Your task to perform on an android device: set an alarm Image 0: 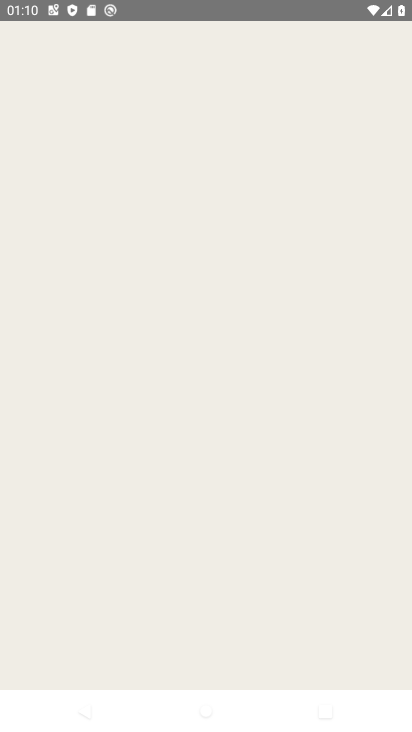
Step 0: click (255, 211)
Your task to perform on an android device: set an alarm Image 1: 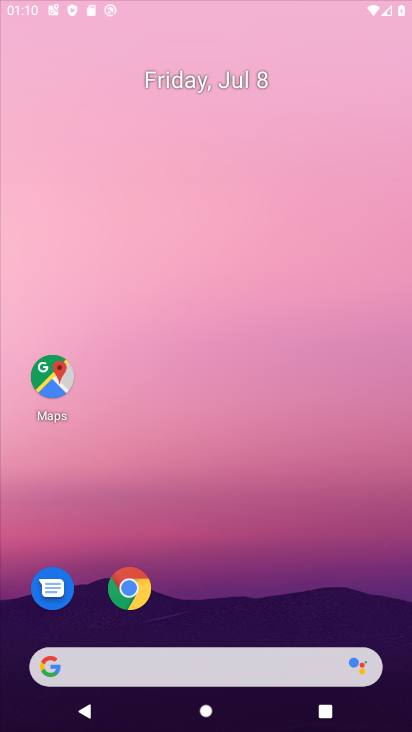
Step 1: drag from (195, 572) to (223, 193)
Your task to perform on an android device: set an alarm Image 2: 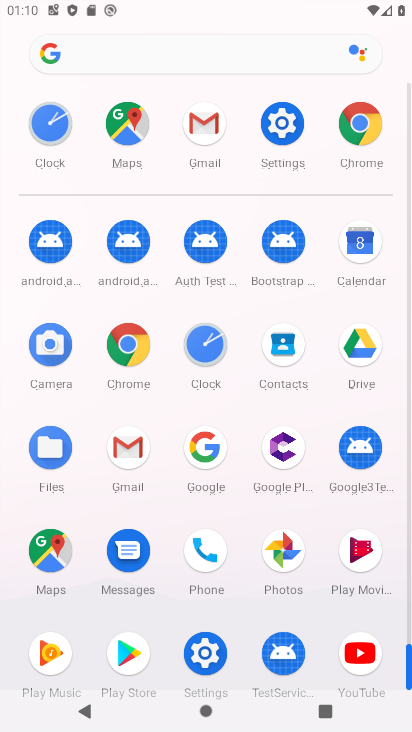
Step 2: press home button
Your task to perform on an android device: set an alarm Image 3: 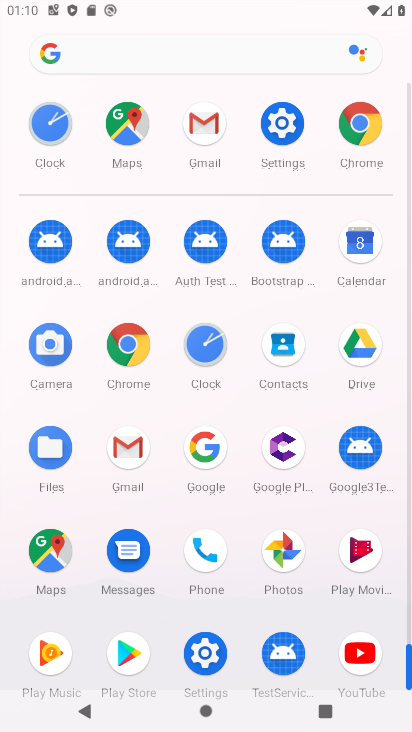
Step 3: press home button
Your task to perform on an android device: set an alarm Image 4: 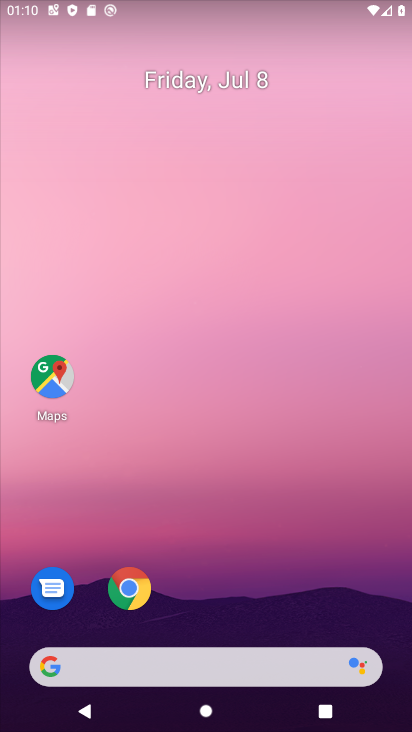
Step 4: drag from (212, 594) to (195, 152)
Your task to perform on an android device: set an alarm Image 5: 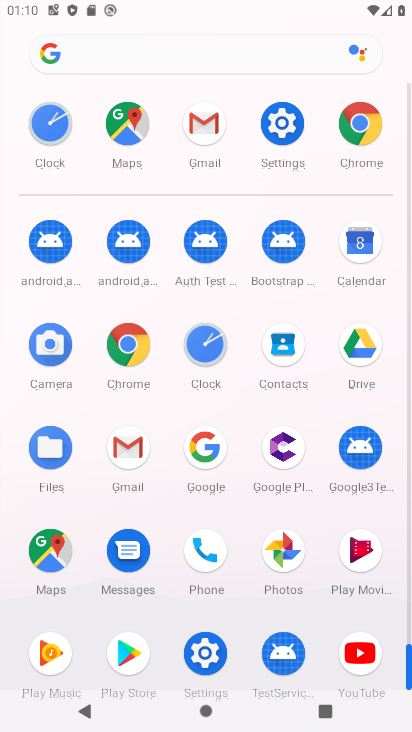
Step 5: click (203, 338)
Your task to perform on an android device: set an alarm Image 6: 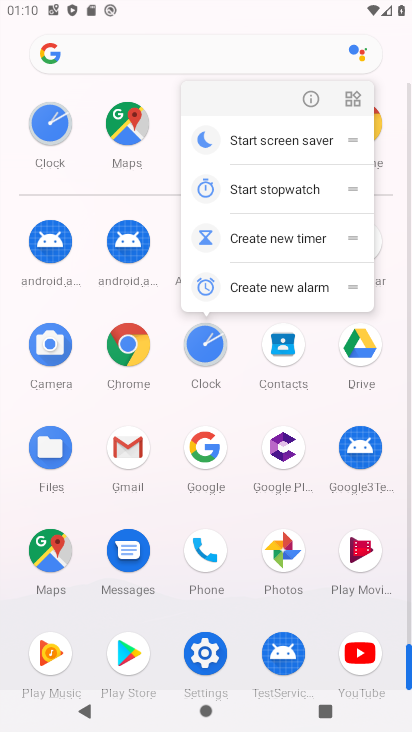
Step 6: click (303, 98)
Your task to perform on an android device: set an alarm Image 7: 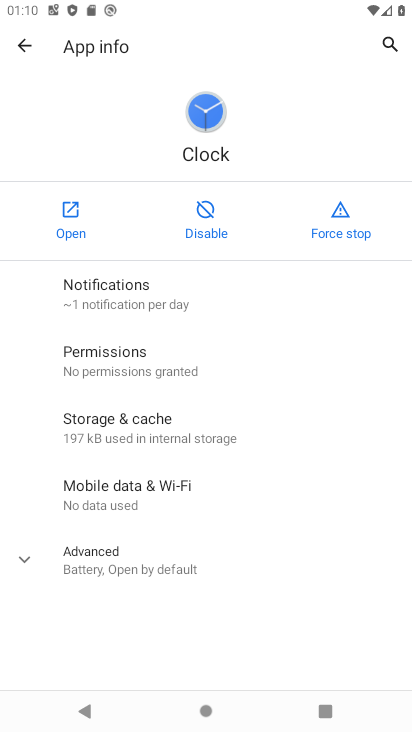
Step 7: click (78, 209)
Your task to perform on an android device: set an alarm Image 8: 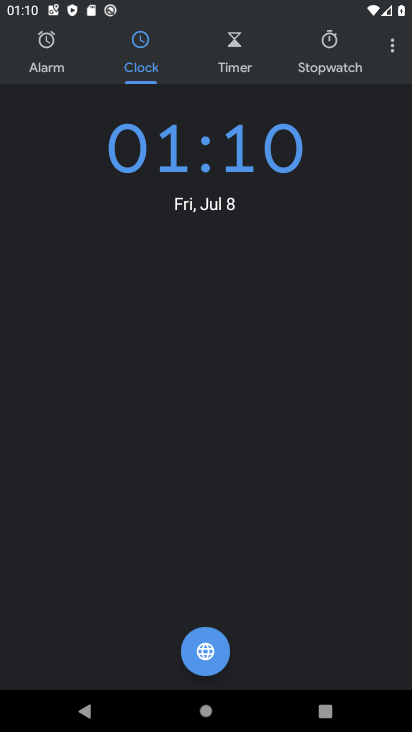
Step 8: click (390, 48)
Your task to perform on an android device: set an alarm Image 9: 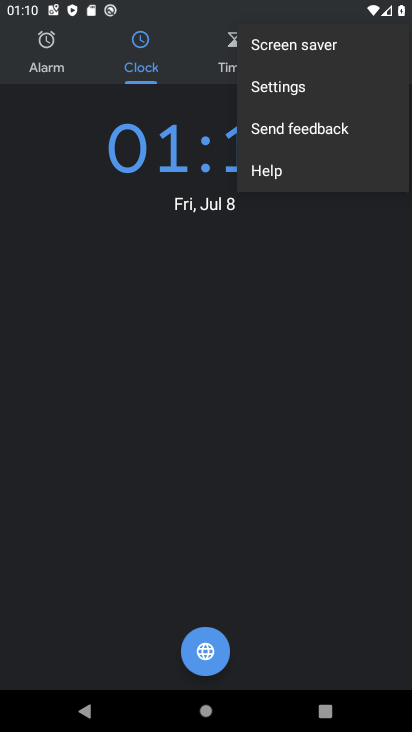
Step 9: click (62, 63)
Your task to perform on an android device: set an alarm Image 10: 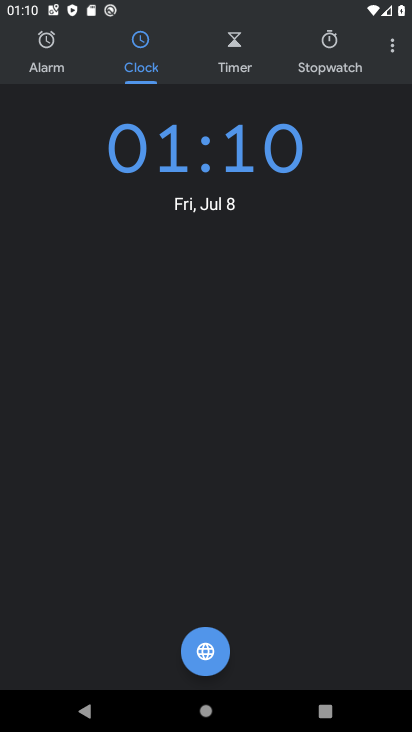
Step 10: click (60, 63)
Your task to perform on an android device: set an alarm Image 11: 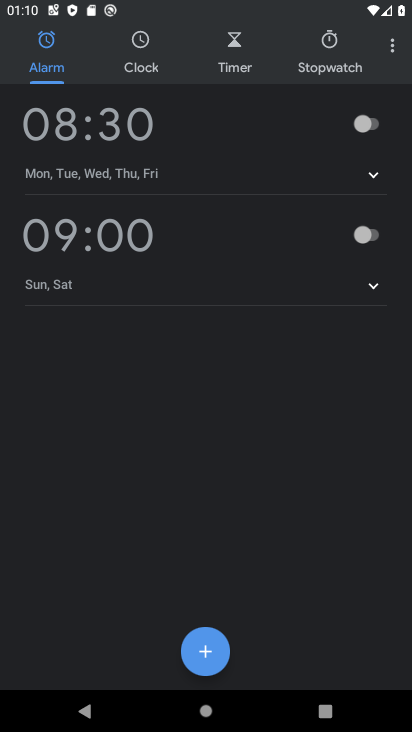
Step 11: click (351, 121)
Your task to perform on an android device: set an alarm Image 12: 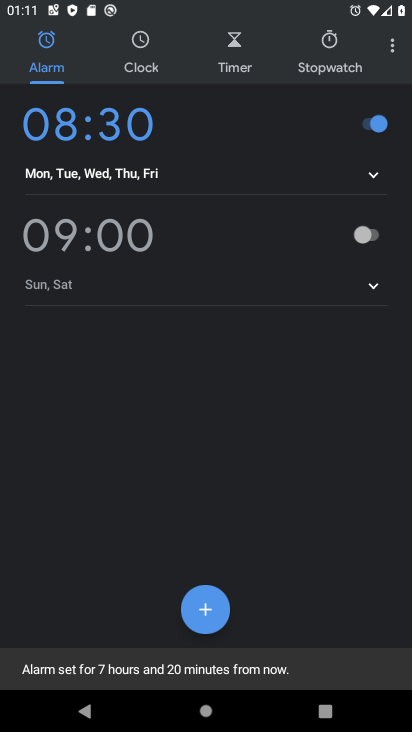
Step 12: task complete